Your task to perform on an android device: open chrome and create a bookmark for the current page Image 0: 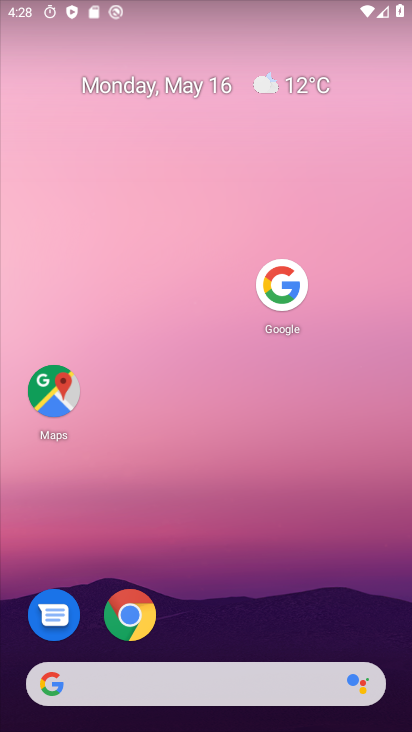
Step 0: click (119, 627)
Your task to perform on an android device: open chrome and create a bookmark for the current page Image 1: 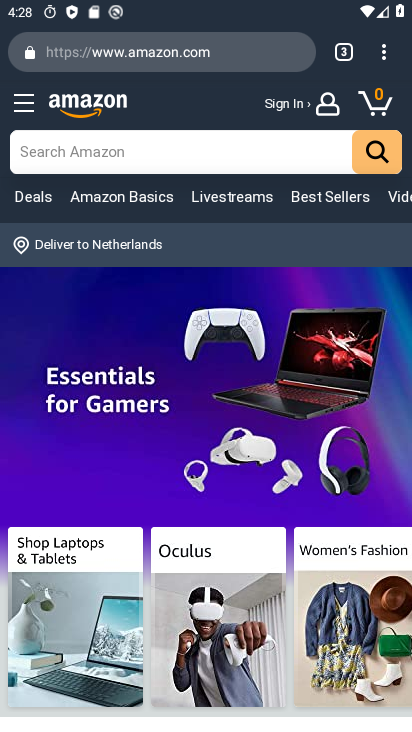
Step 1: click (377, 55)
Your task to perform on an android device: open chrome and create a bookmark for the current page Image 2: 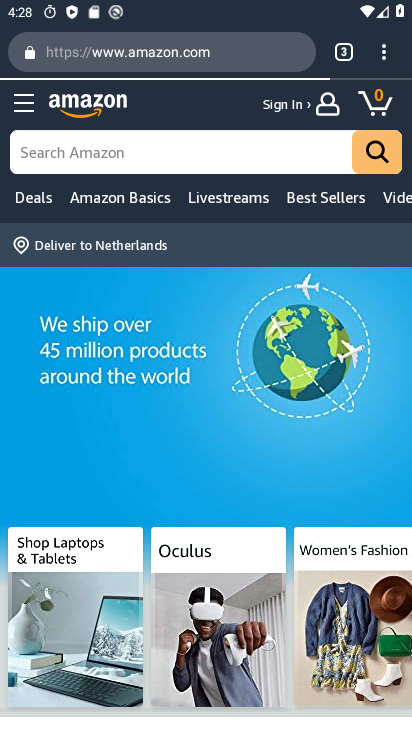
Step 2: task complete